Your task to perform on an android device: Search for Mexican restaurants on Maps Image 0: 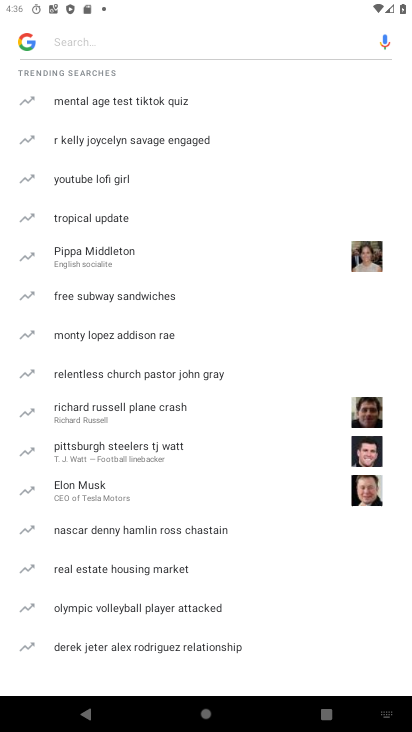
Step 0: press home button
Your task to perform on an android device: Search for Mexican restaurants on Maps Image 1: 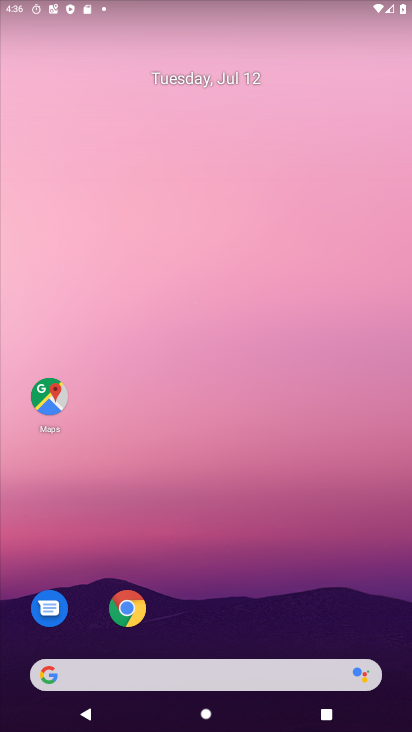
Step 1: click (52, 405)
Your task to perform on an android device: Search for Mexican restaurants on Maps Image 2: 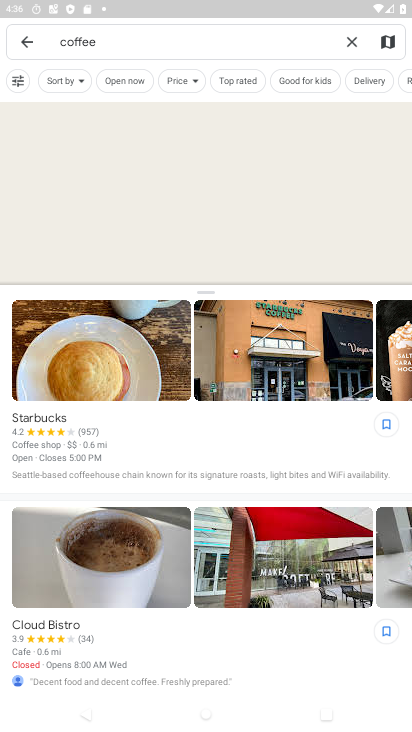
Step 2: click (351, 37)
Your task to perform on an android device: Search for Mexican restaurants on Maps Image 3: 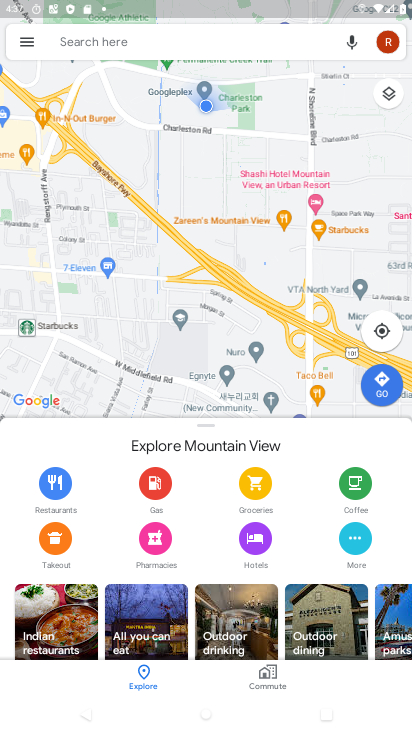
Step 3: click (185, 33)
Your task to perform on an android device: Search for Mexican restaurants on Maps Image 4: 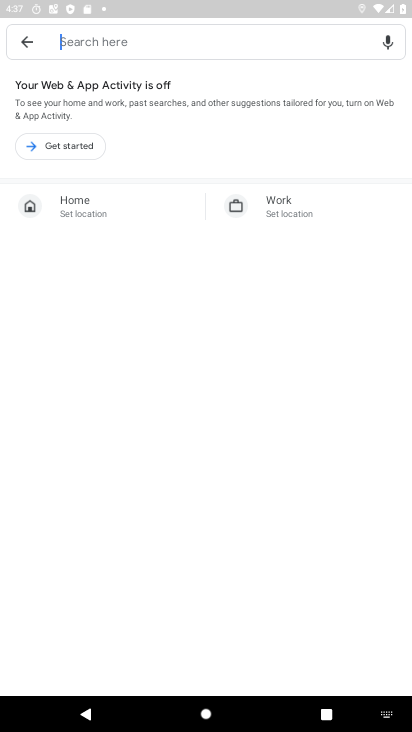
Step 4: type "Mexican restaurants"
Your task to perform on an android device: Search for Mexican restaurants on Maps Image 5: 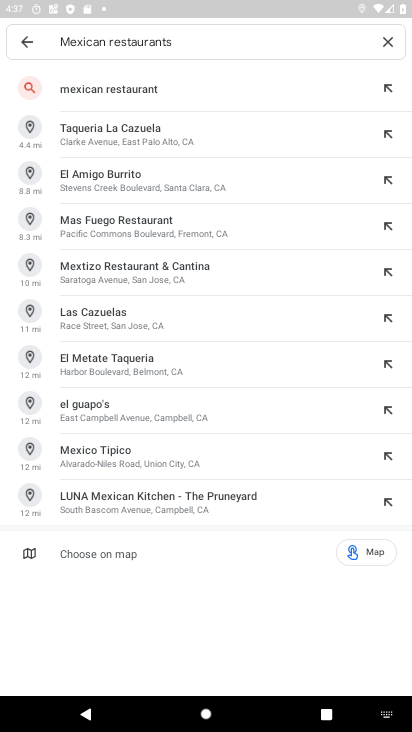
Step 5: click (200, 96)
Your task to perform on an android device: Search for Mexican restaurants on Maps Image 6: 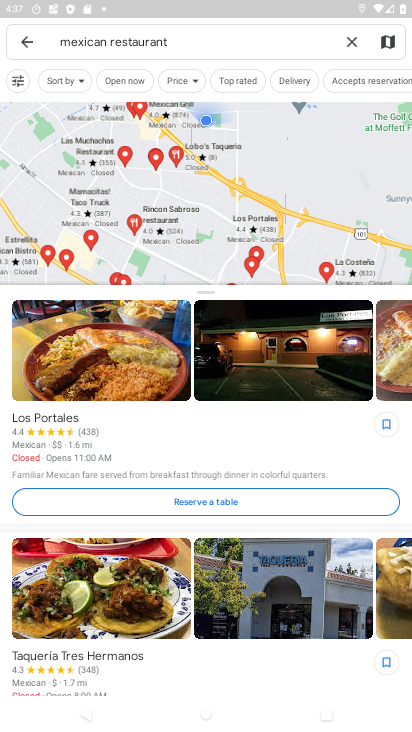
Step 6: task complete